Your task to perform on an android device: What is the news today? Image 0: 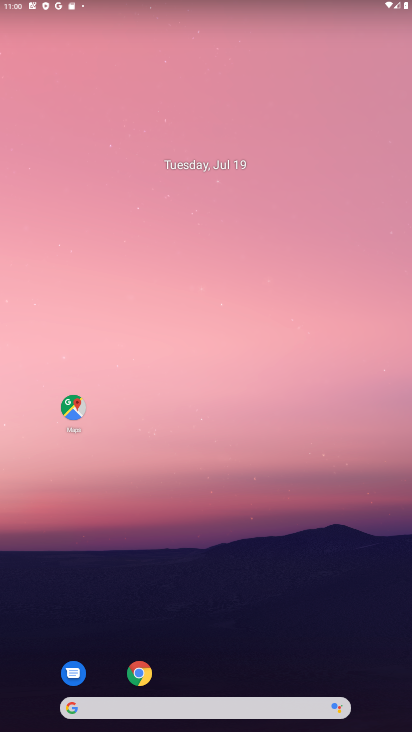
Step 0: drag from (2, 315) to (389, 331)
Your task to perform on an android device: What is the news today? Image 1: 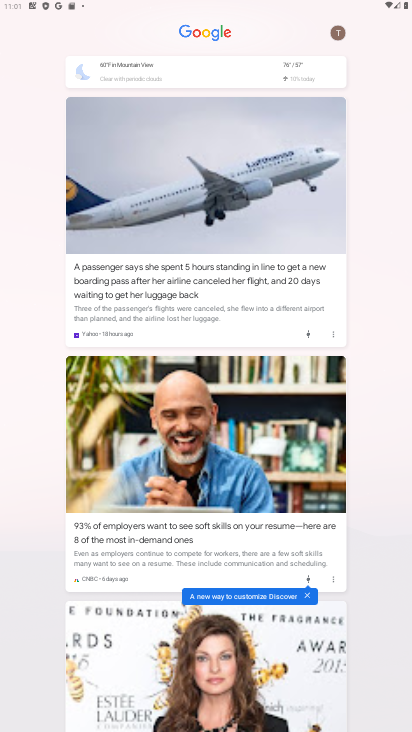
Step 1: task complete